Your task to perform on an android device: Go to Wikipedia Image 0: 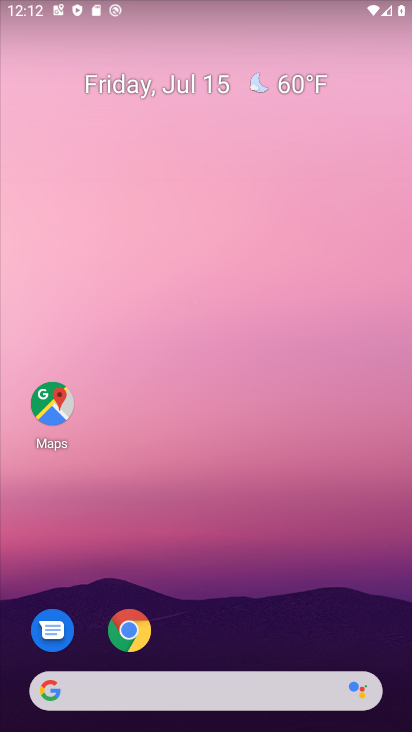
Step 0: click (135, 688)
Your task to perform on an android device: Go to Wikipedia Image 1: 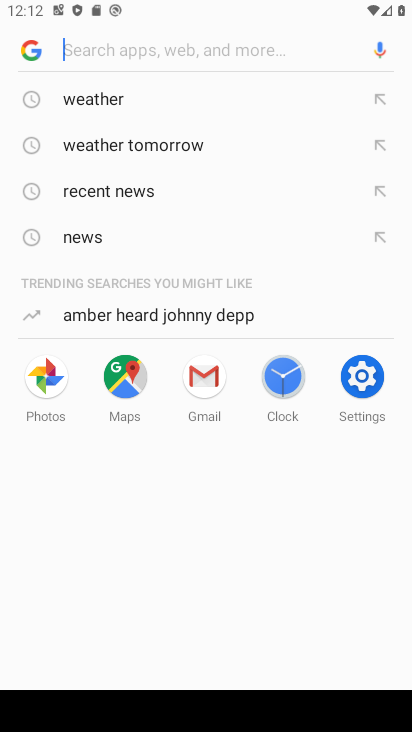
Step 1: type "Wikipedia"
Your task to perform on an android device: Go to Wikipedia Image 2: 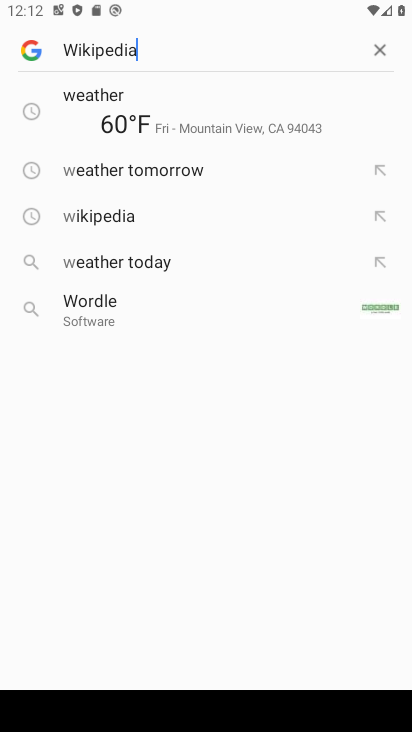
Step 2: type ""
Your task to perform on an android device: Go to Wikipedia Image 3: 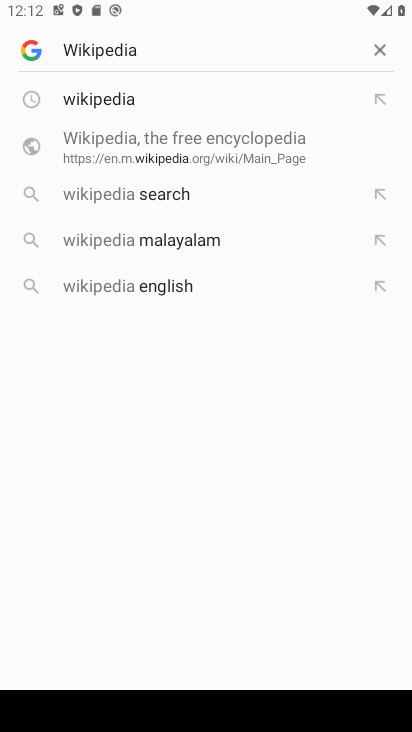
Step 3: click (120, 101)
Your task to perform on an android device: Go to Wikipedia Image 4: 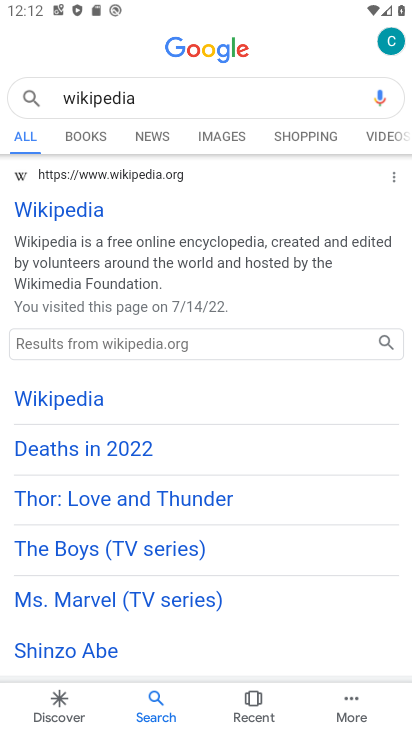
Step 4: task complete